Your task to perform on an android device: turn on bluetooth scan Image 0: 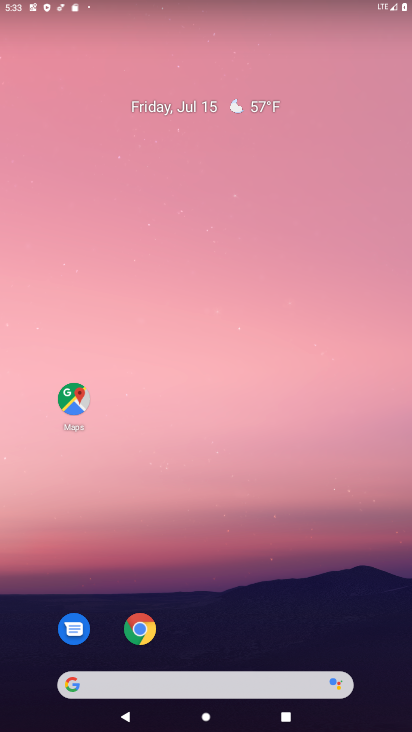
Step 0: press home button
Your task to perform on an android device: turn on bluetooth scan Image 1: 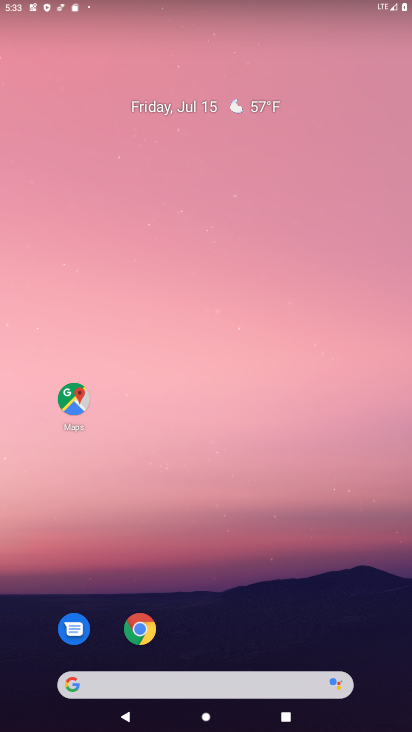
Step 1: drag from (228, 621) to (307, 13)
Your task to perform on an android device: turn on bluetooth scan Image 2: 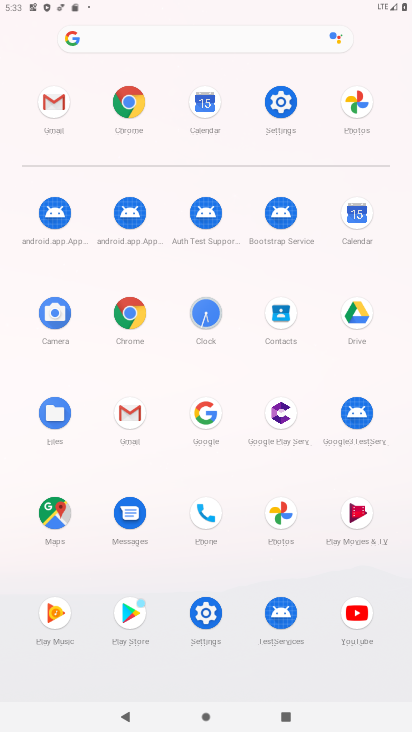
Step 2: click (284, 105)
Your task to perform on an android device: turn on bluetooth scan Image 3: 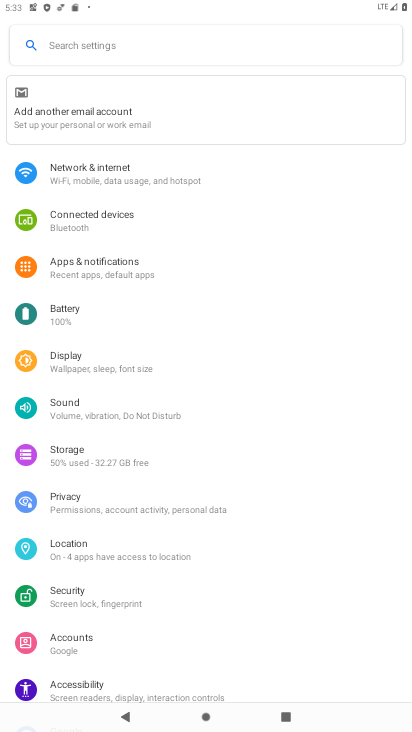
Step 3: click (68, 544)
Your task to perform on an android device: turn on bluetooth scan Image 4: 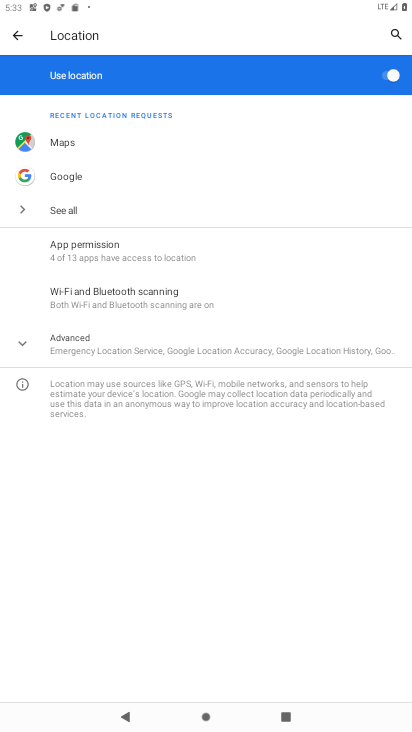
Step 4: click (71, 298)
Your task to perform on an android device: turn on bluetooth scan Image 5: 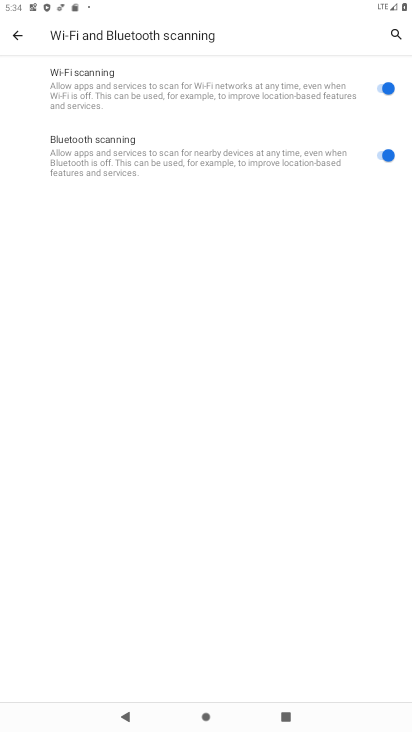
Step 5: task complete